Your task to perform on an android device: open chrome and create a bookmark for the current page Image 0: 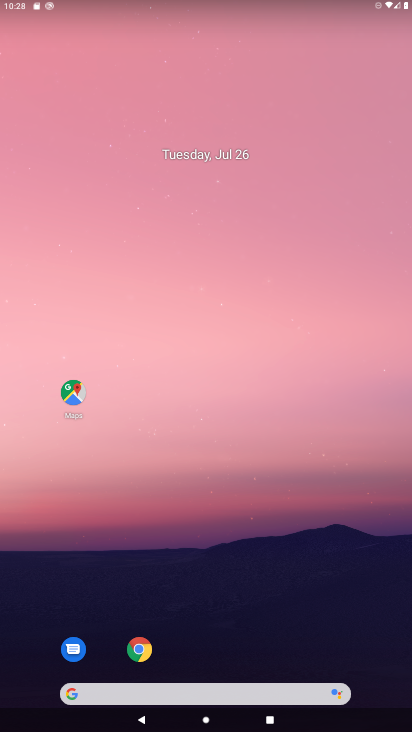
Step 0: click (138, 652)
Your task to perform on an android device: open chrome and create a bookmark for the current page Image 1: 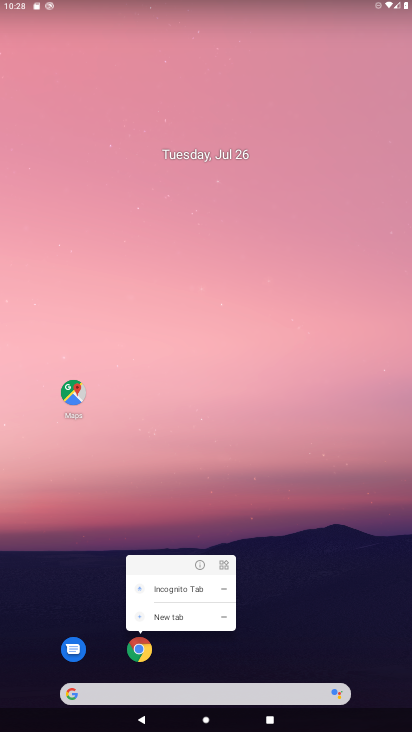
Step 1: click (138, 652)
Your task to perform on an android device: open chrome and create a bookmark for the current page Image 2: 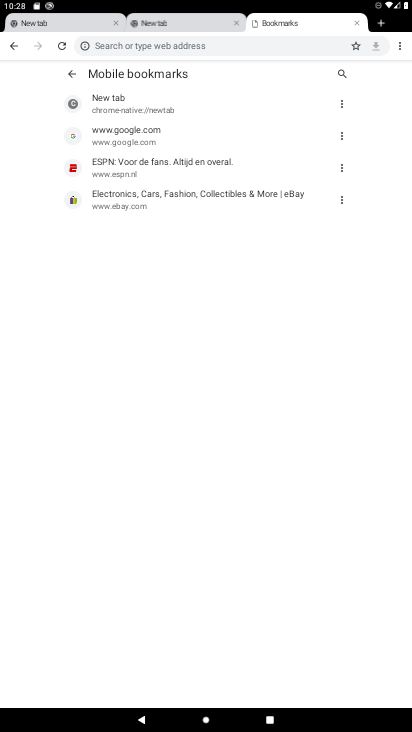
Step 2: click (356, 44)
Your task to perform on an android device: open chrome and create a bookmark for the current page Image 3: 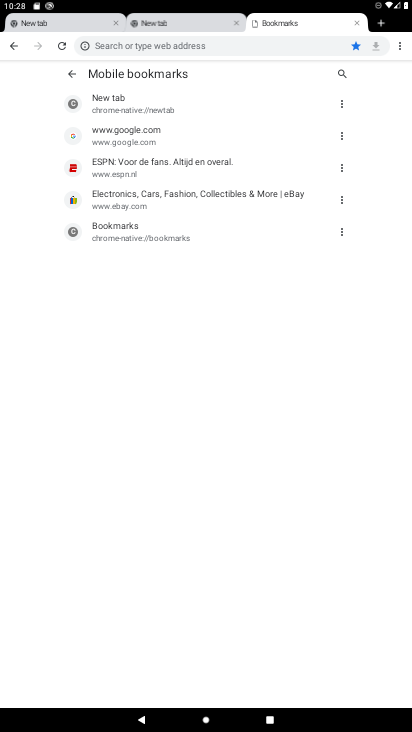
Step 3: task complete